Your task to perform on an android device: turn on showing notifications on the lock screen Image 0: 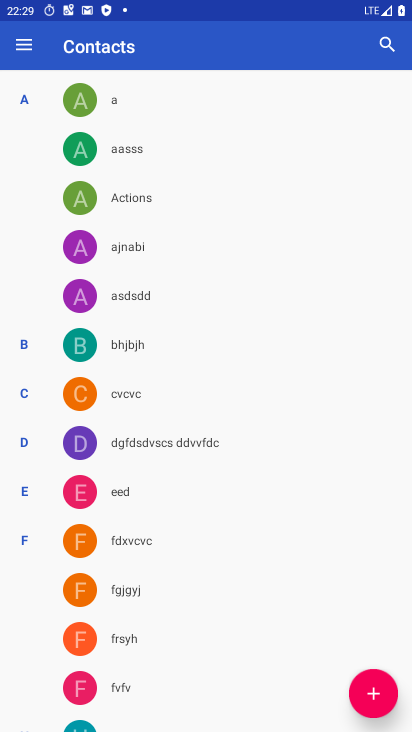
Step 0: press home button
Your task to perform on an android device: turn on showing notifications on the lock screen Image 1: 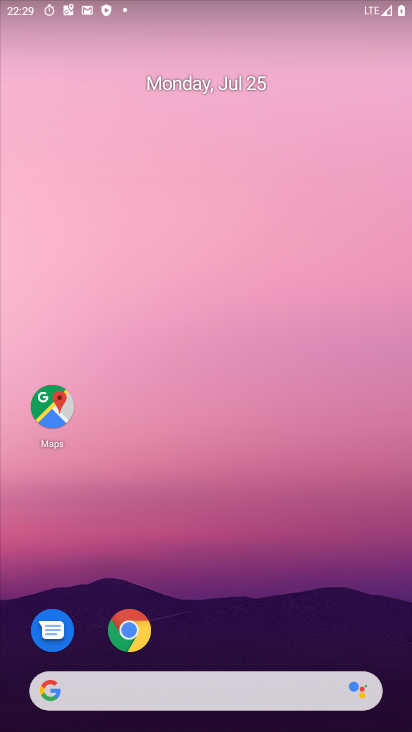
Step 1: drag from (307, 657) to (259, 184)
Your task to perform on an android device: turn on showing notifications on the lock screen Image 2: 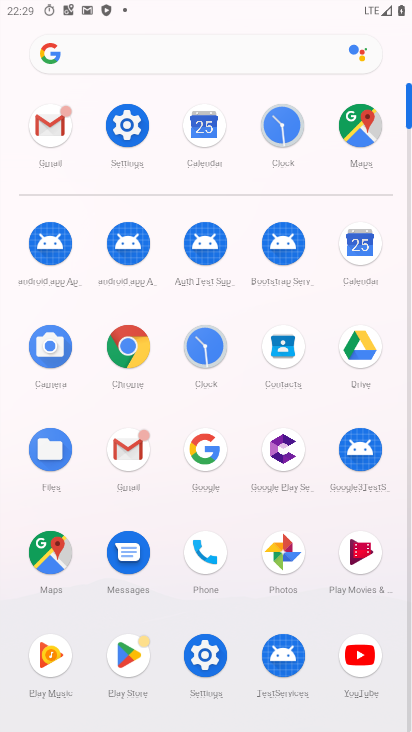
Step 2: click (123, 119)
Your task to perform on an android device: turn on showing notifications on the lock screen Image 3: 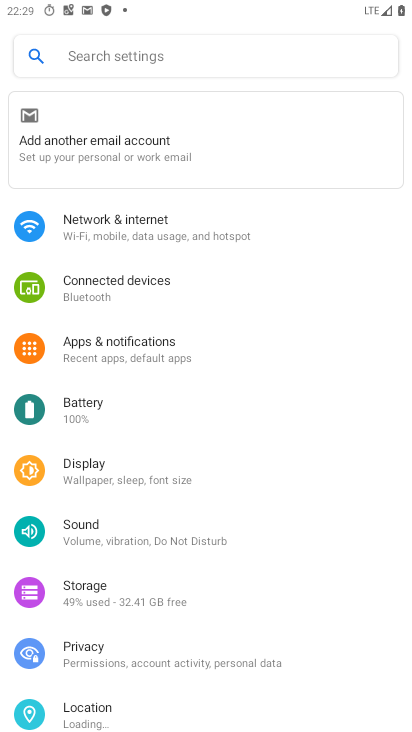
Step 3: click (141, 345)
Your task to perform on an android device: turn on showing notifications on the lock screen Image 4: 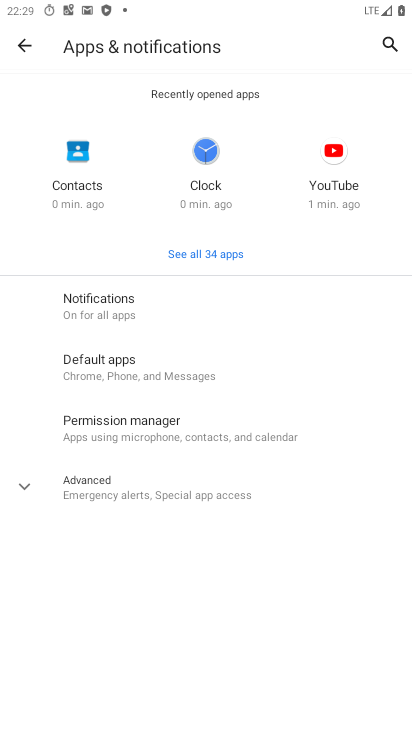
Step 4: click (92, 296)
Your task to perform on an android device: turn on showing notifications on the lock screen Image 5: 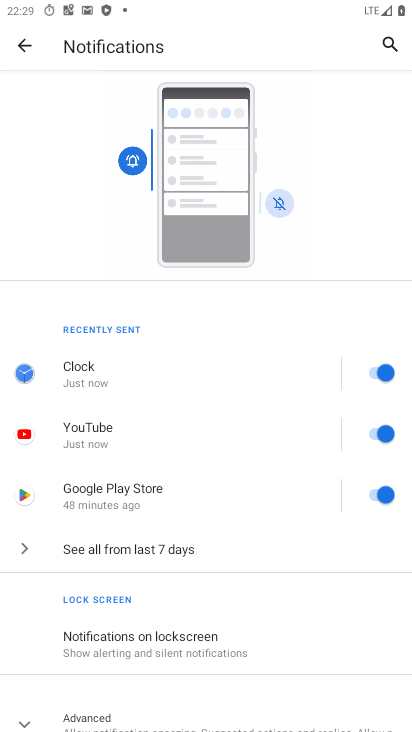
Step 5: click (76, 637)
Your task to perform on an android device: turn on showing notifications on the lock screen Image 6: 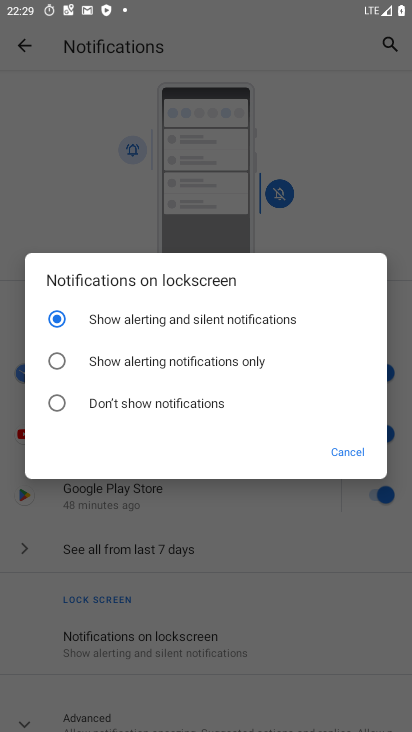
Step 6: task complete